Your task to perform on an android device: allow notifications from all sites in the chrome app Image 0: 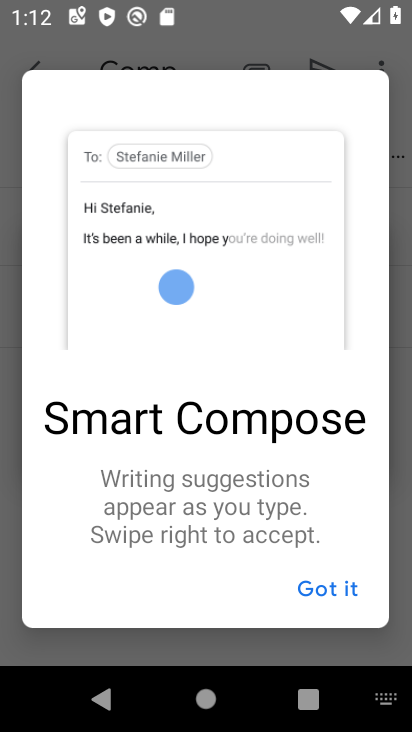
Step 0: press home button
Your task to perform on an android device: allow notifications from all sites in the chrome app Image 1: 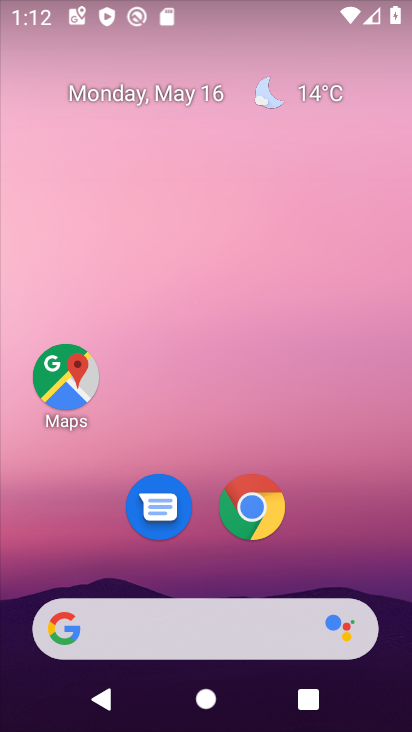
Step 1: click (246, 496)
Your task to perform on an android device: allow notifications from all sites in the chrome app Image 2: 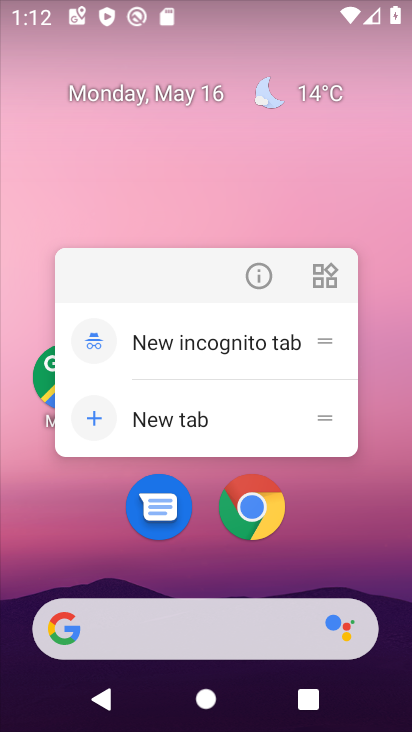
Step 2: click (248, 499)
Your task to perform on an android device: allow notifications from all sites in the chrome app Image 3: 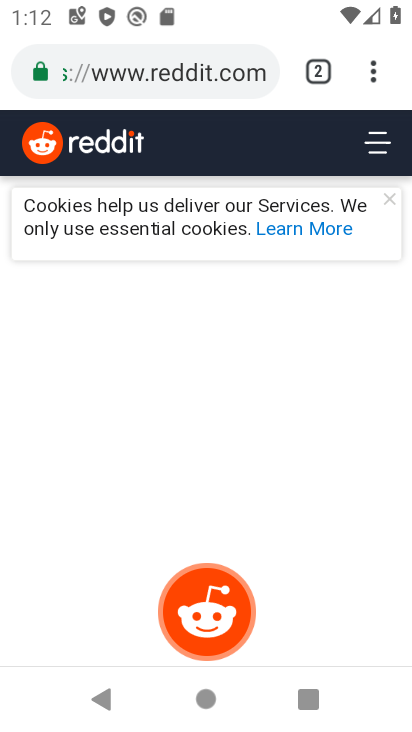
Step 3: click (372, 65)
Your task to perform on an android device: allow notifications from all sites in the chrome app Image 4: 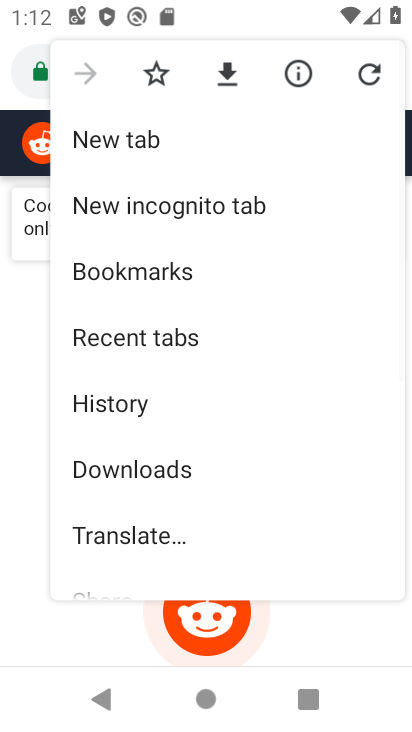
Step 4: drag from (108, 552) to (275, 55)
Your task to perform on an android device: allow notifications from all sites in the chrome app Image 5: 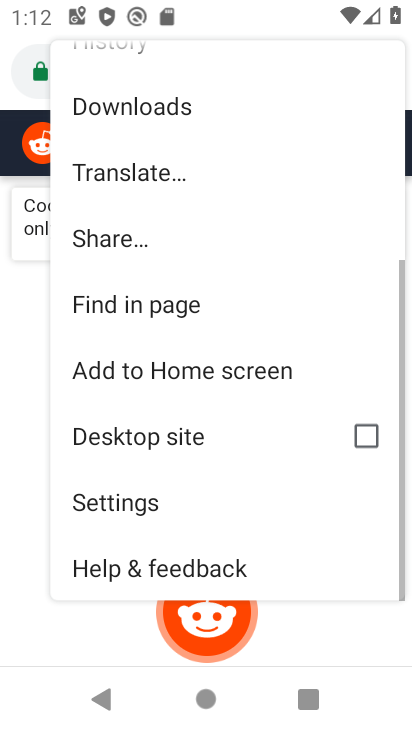
Step 5: click (146, 494)
Your task to perform on an android device: allow notifications from all sites in the chrome app Image 6: 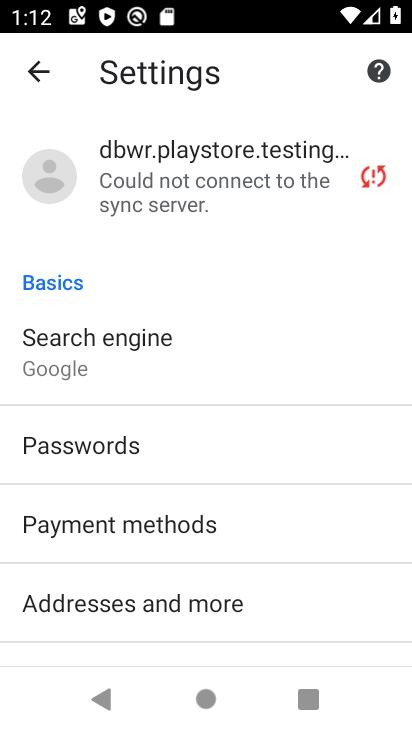
Step 6: drag from (48, 563) to (216, 192)
Your task to perform on an android device: allow notifications from all sites in the chrome app Image 7: 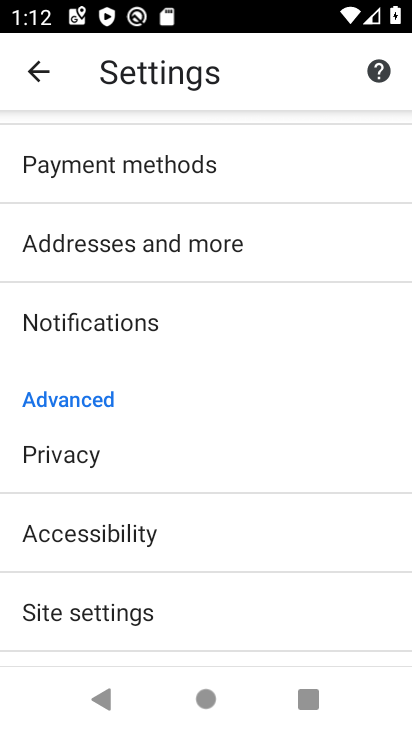
Step 7: click (90, 322)
Your task to perform on an android device: allow notifications from all sites in the chrome app Image 8: 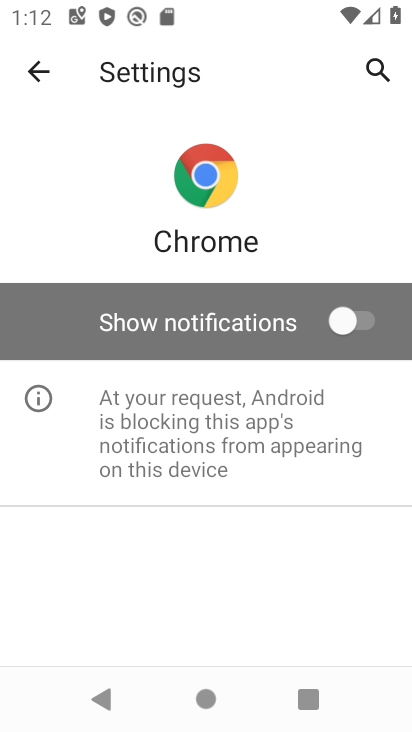
Step 8: click (335, 311)
Your task to perform on an android device: allow notifications from all sites in the chrome app Image 9: 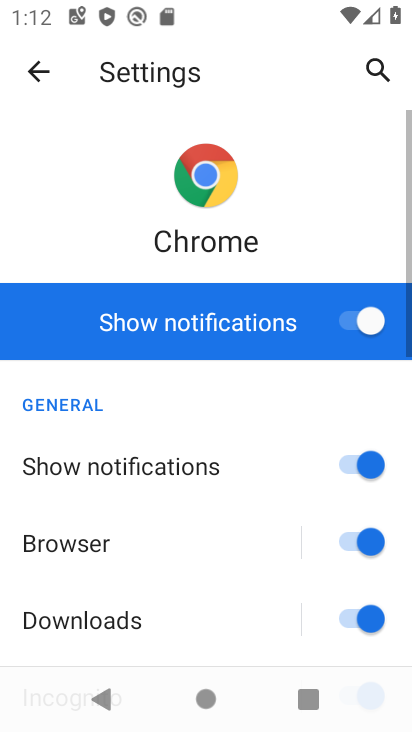
Step 9: task complete